Your task to perform on an android device: Is it going to rain today? Image 0: 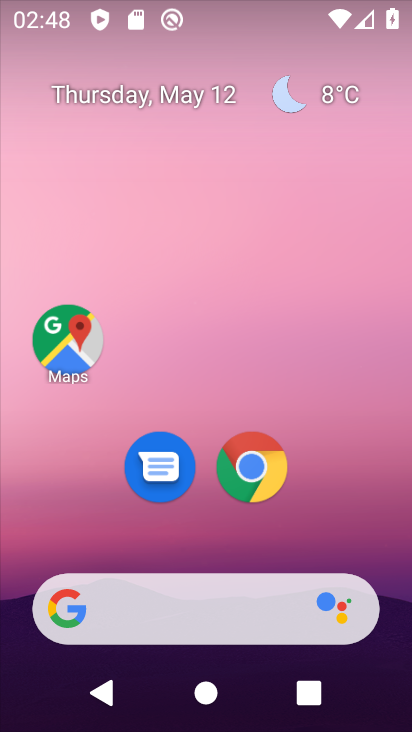
Step 0: click (315, 90)
Your task to perform on an android device: Is it going to rain today? Image 1: 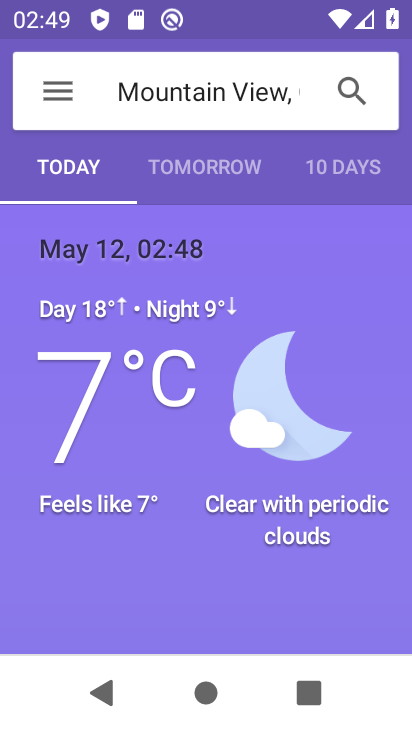
Step 1: task complete